Your task to perform on an android device: Open calendar and show me the first week of next month Image 0: 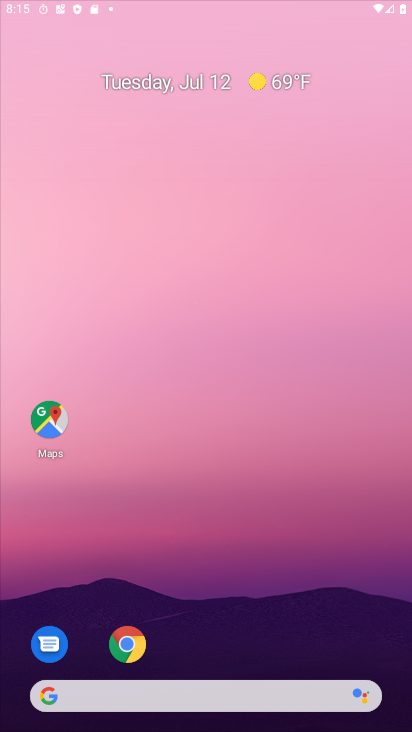
Step 0: press home button
Your task to perform on an android device: Open calendar and show me the first week of next month Image 1: 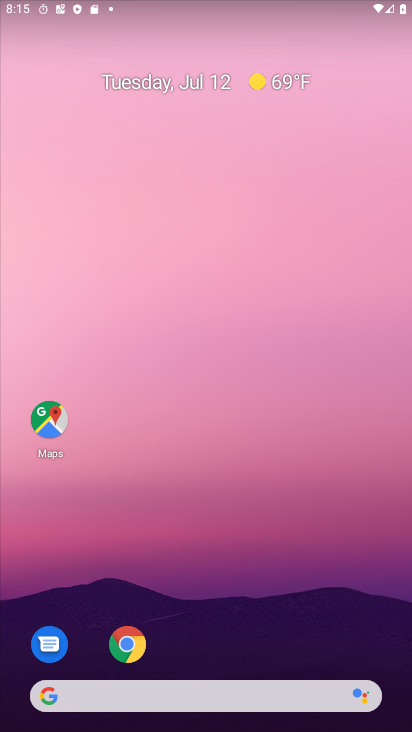
Step 1: drag from (204, 650) to (220, 130)
Your task to perform on an android device: Open calendar and show me the first week of next month Image 2: 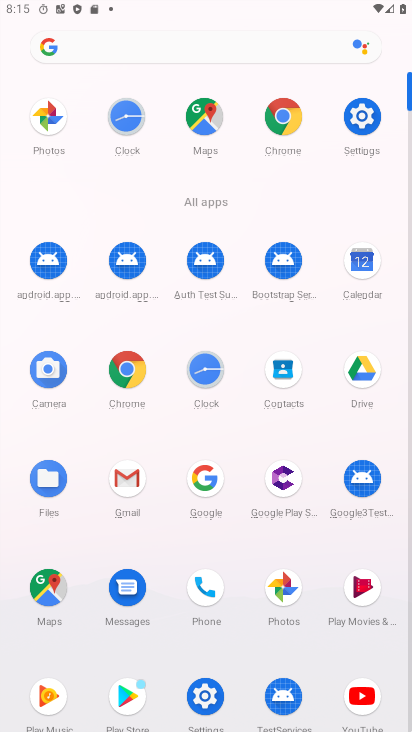
Step 2: click (361, 263)
Your task to perform on an android device: Open calendar and show me the first week of next month Image 3: 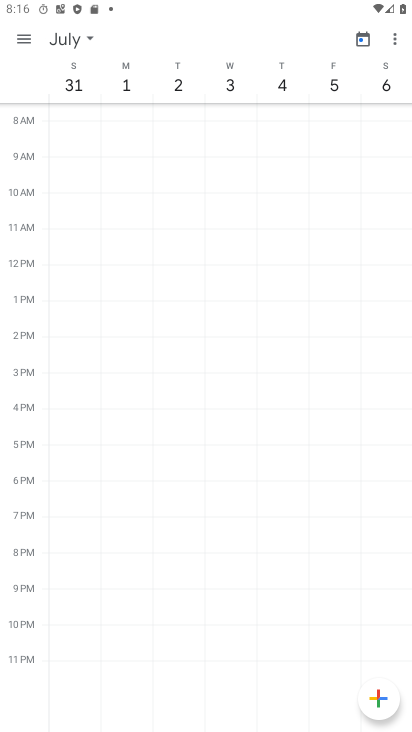
Step 3: task complete